Your task to perform on an android device: open sync settings in chrome Image 0: 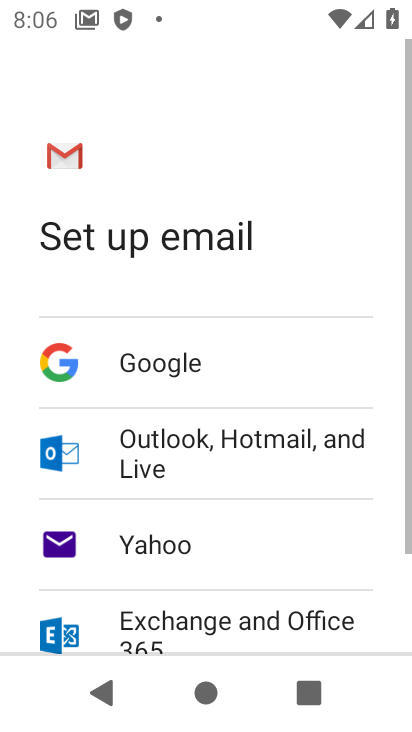
Step 0: press back button
Your task to perform on an android device: open sync settings in chrome Image 1: 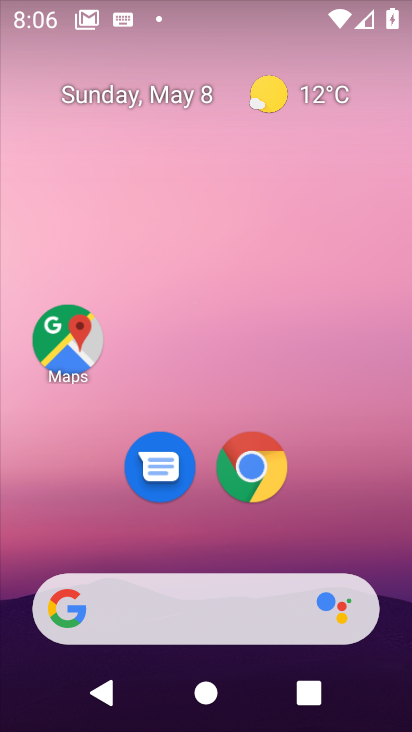
Step 1: click (223, 464)
Your task to perform on an android device: open sync settings in chrome Image 2: 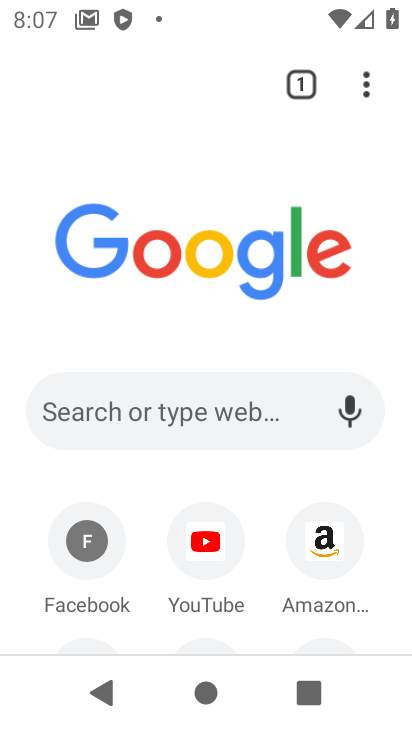
Step 2: click (364, 74)
Your task to perform on an android device: open sync settings in chrome Image 3: 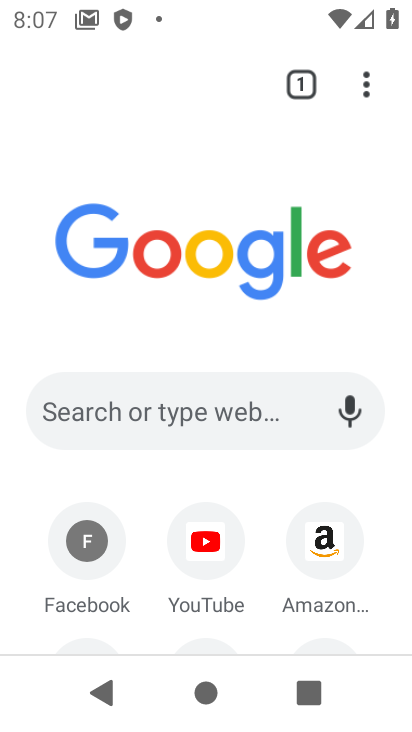
Step 3: drag from (375, 77) to (115, 514)
Your task to perform on an android device: open sync settings in chrome Image 4: 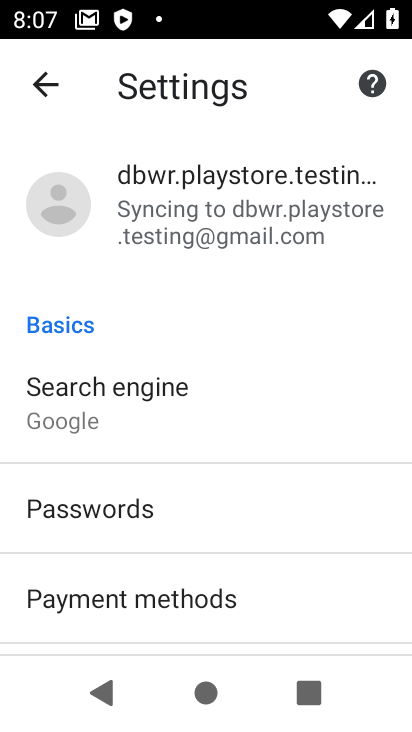
Step 4: drag from (157, 603) to (298, 167)
Your task to perform on an android device: open sync settings in chrome Image 5: 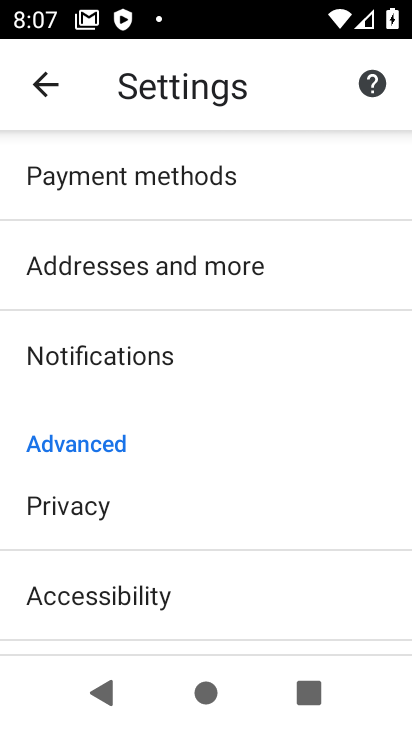
Step 5: drag from (220, 158) to (140, 685)
Your task to perform on an android device: open sync settings in chrome Image 6: 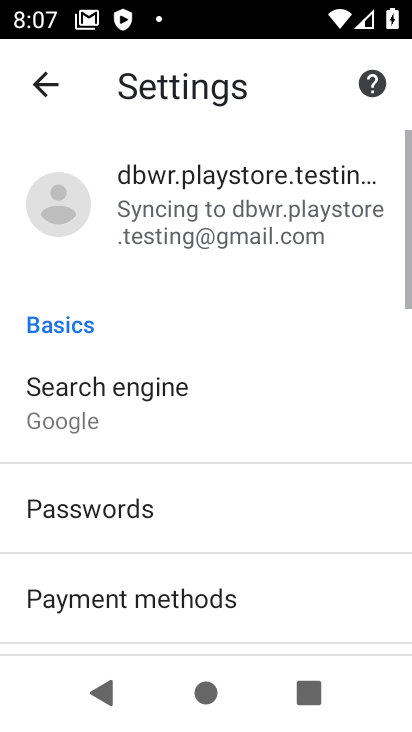
Step 6: click (195, 174)
Your task to perform on an android device: open sync settings in chrome Image 7: 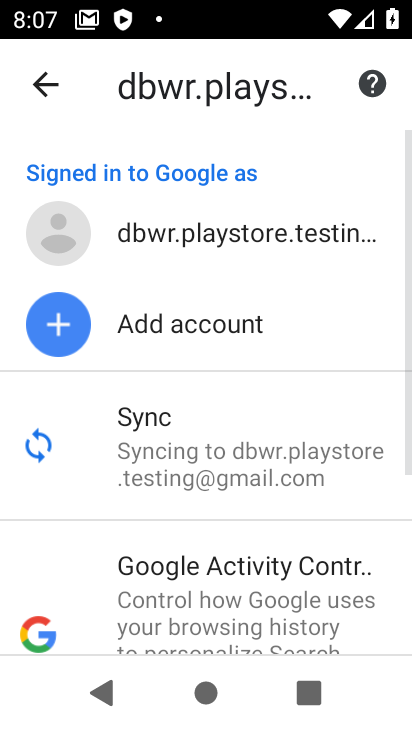
Step 7: task complete